Your task to perform on an android device: open a new tab in the chrome app Image 0: 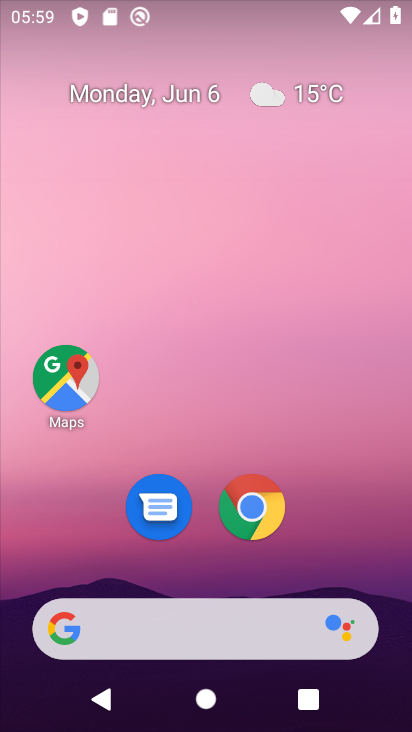
Step 0: click (253, 514)
Your task to perform on an android device: open a new tab in the chrome app Image 1: 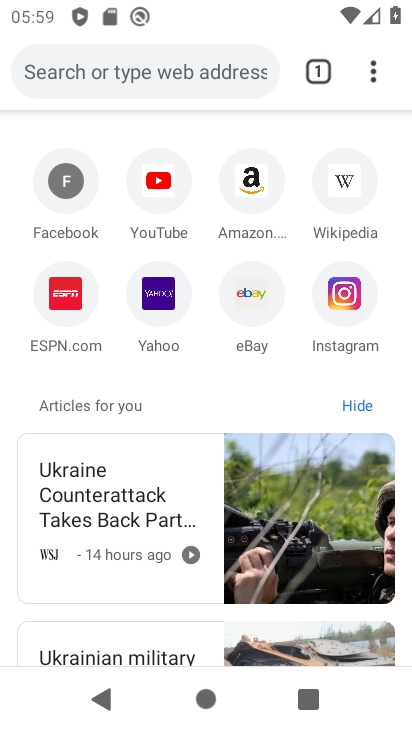
Step 1: click (319, 79)
Your task to perform on an android device: open a new tab in the chrome app Image 2: 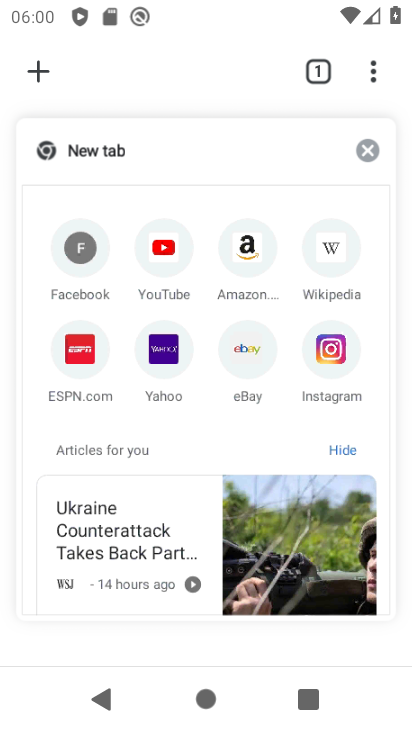
Step 2: click (29, 83)
Your task to perform on an android device: open a new tab in the chrome app Image 3: 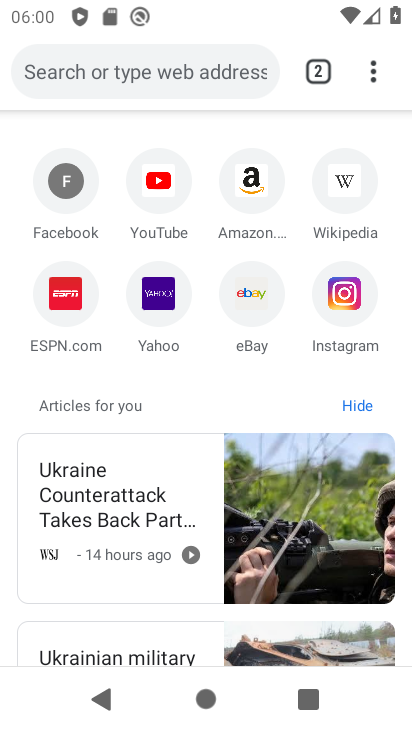
Step 3: task complete